Your task to perform on an android device: Open eBay Image 0: 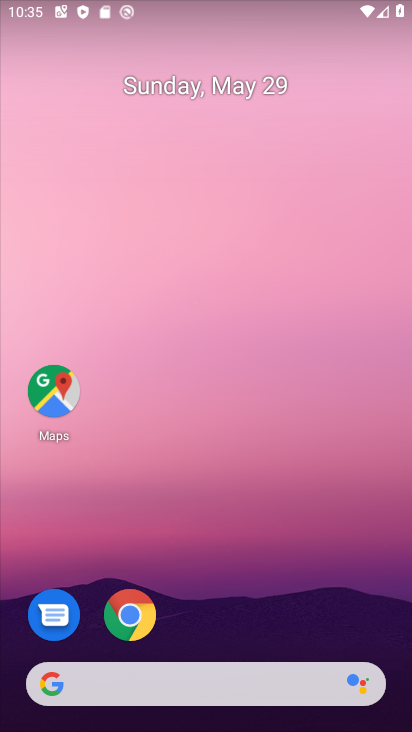
Step 0: drag from (182, 663) to (288, 35)
Your task to perform on an android device: Open eBay Image 1: 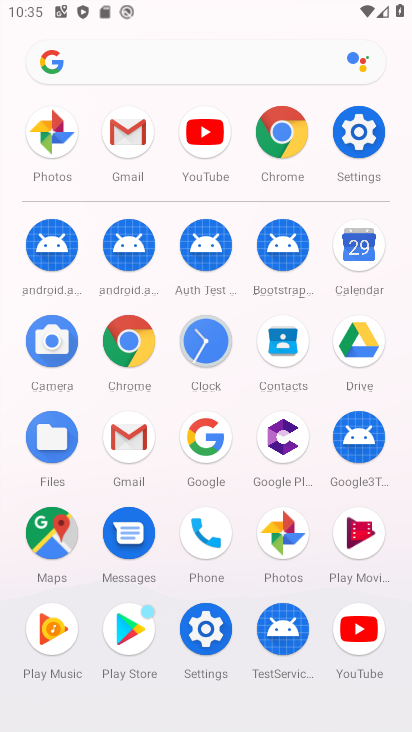
Step 1: click (139, 343)
Your task to perform on an android device: Open eBay Image 2: 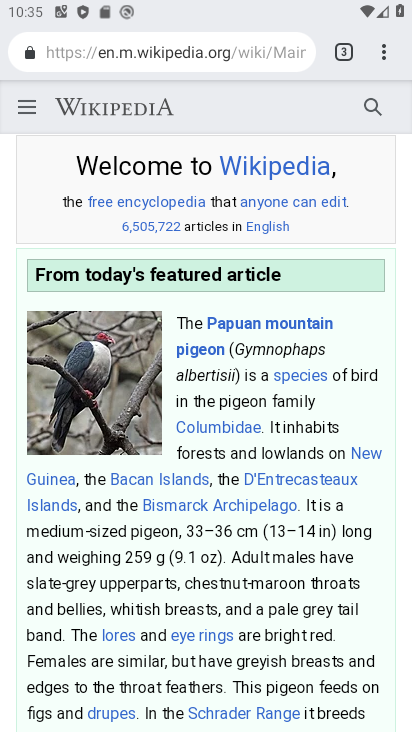
Step 2: click (344, 56)
Your task to perform on an android device: Open eBay Image 3: 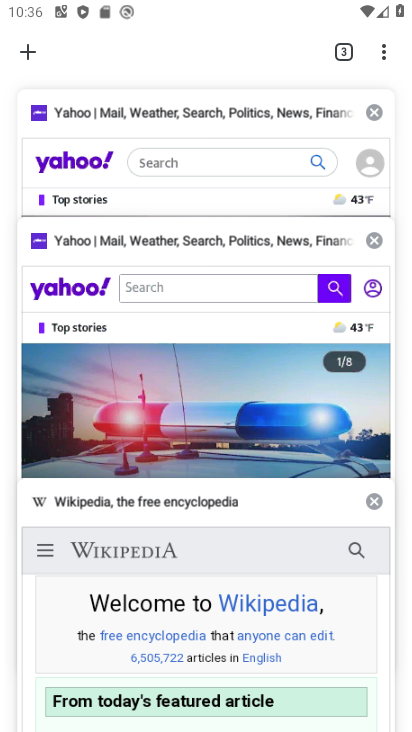
Step 3: click (20, 41)
Your task to perform on an android device: Open eBay Image 4: 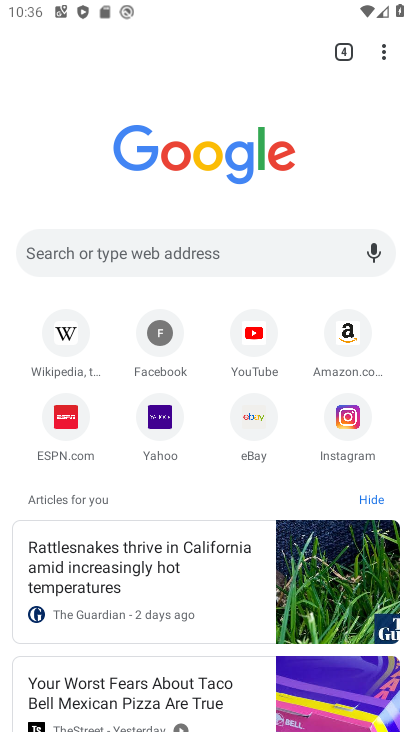
Step 4: click (235, 423)
Your task to perform on an android device: Open eBay Image 5: 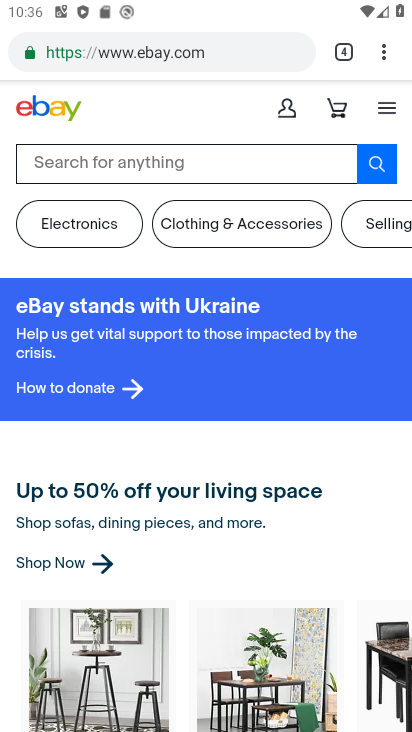
Step 5: task complete